Your task to perform on an android device: turn smart compose on in the gmail app Image 0: 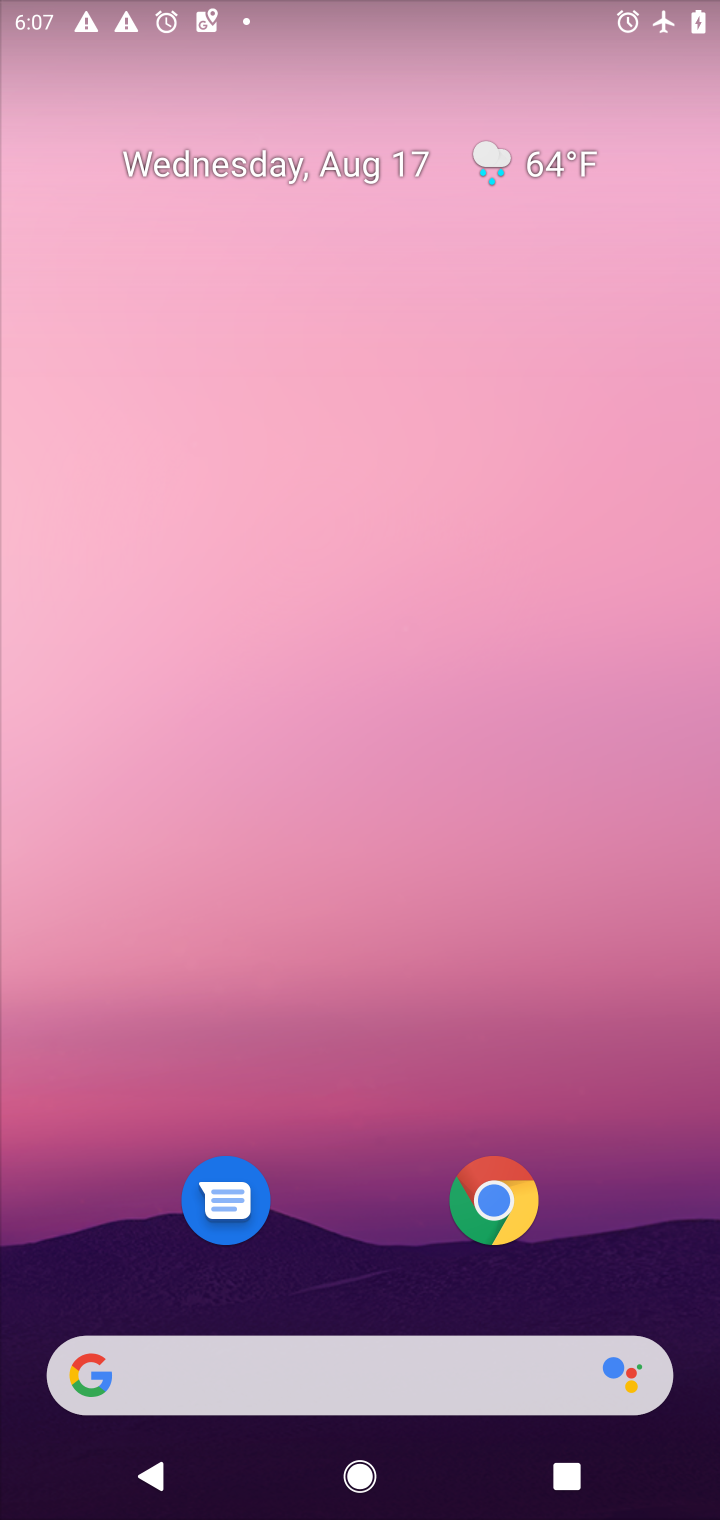
Step 0: drag from (363, 975) to (373, 128)
Your task to perform on an android device: turn smart compose on in the gmail app Image 1: 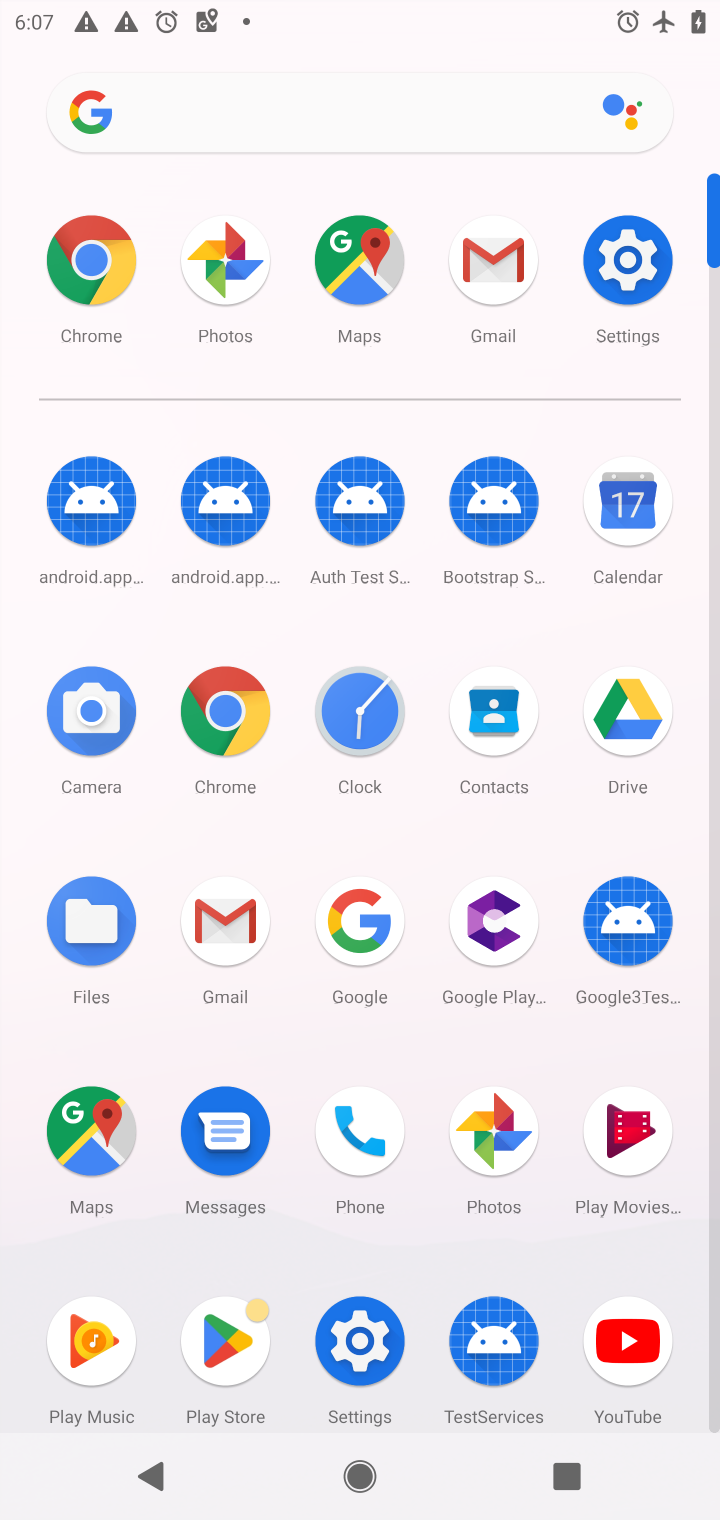
Step 1: click (224, 913)
Your task to perform on an android device: turn smart compose on in the gmail app Image 2: 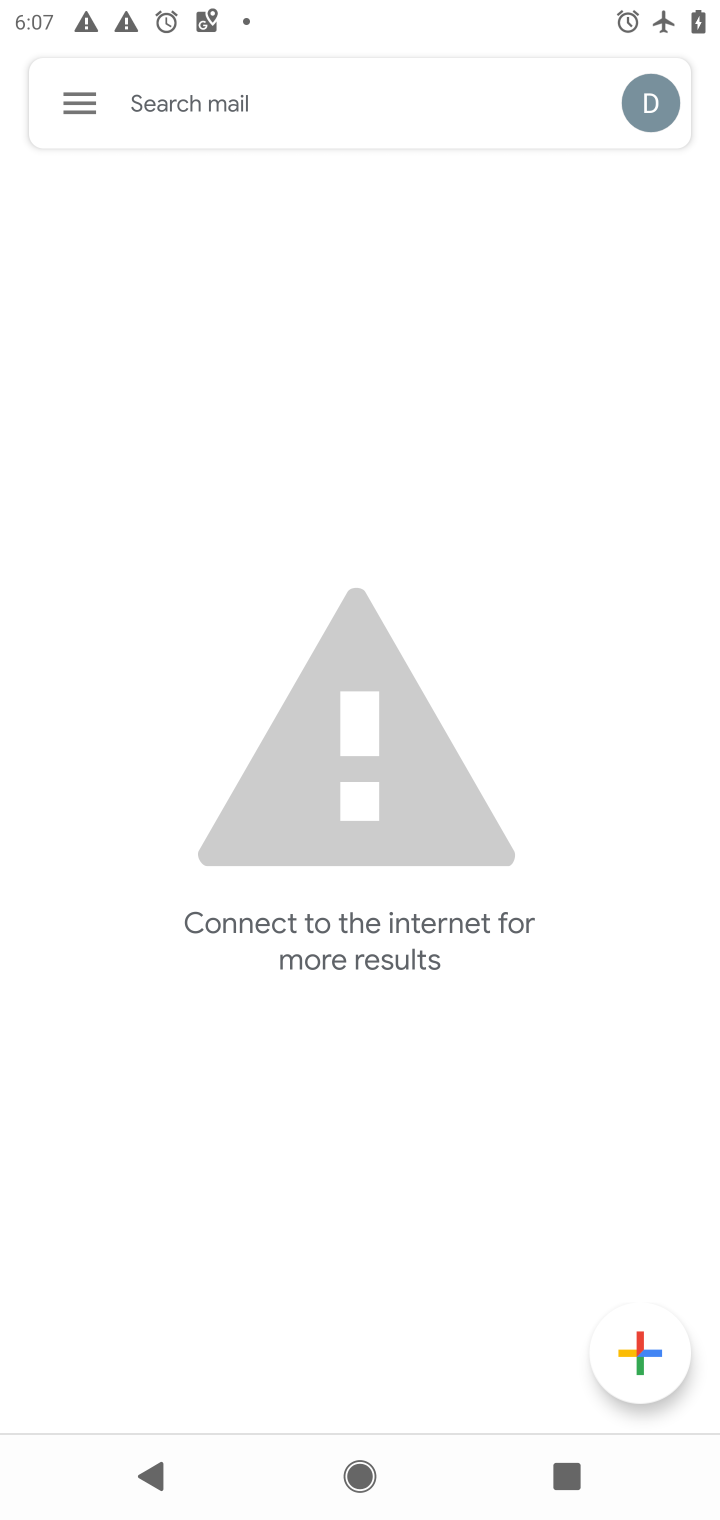
Step 2: click (65, 99)
Your task to perform on an android device: turn smart compose on in the gmail app Image 3: 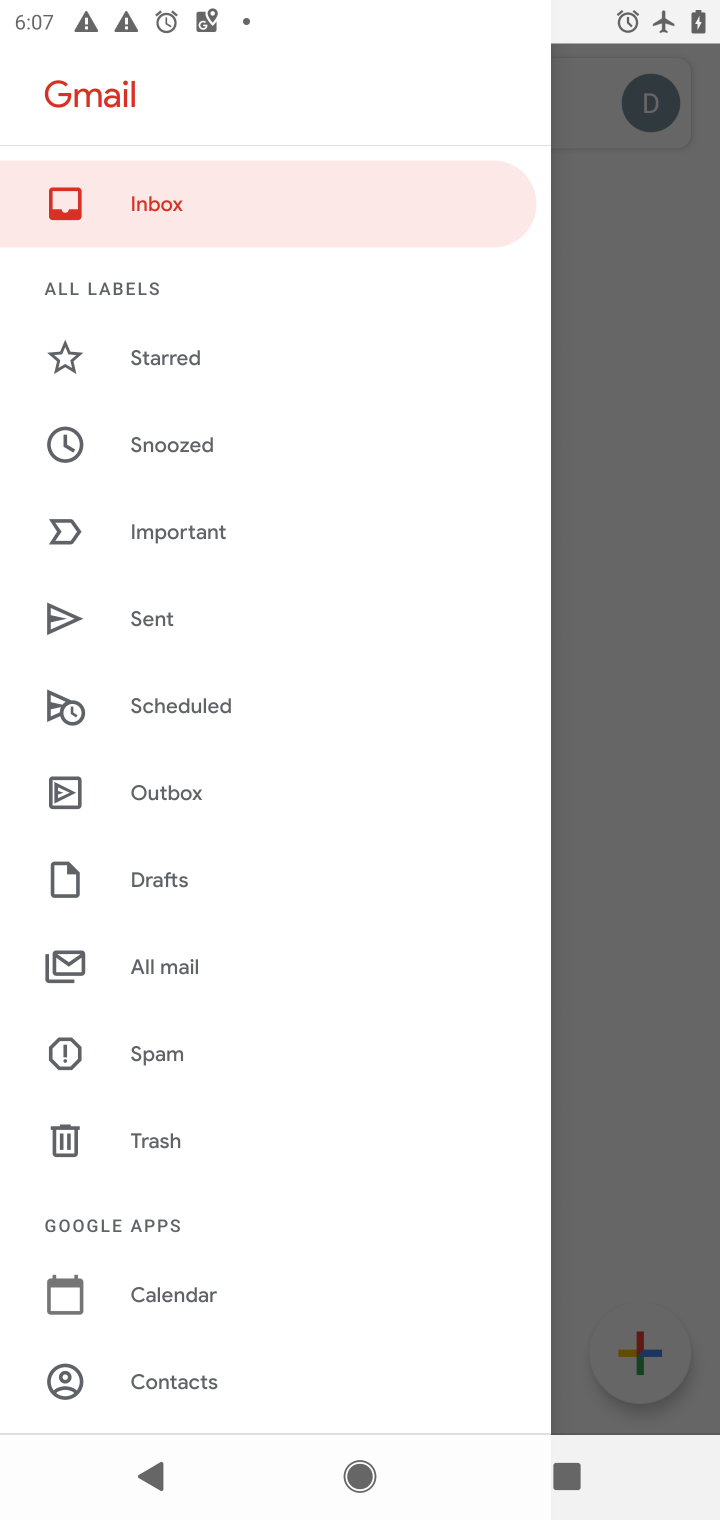
Step 3: drag from (179, 1320) to (175, 735)
Your task to perform on an android device: turn smart compose on in the gmail app Image 4: 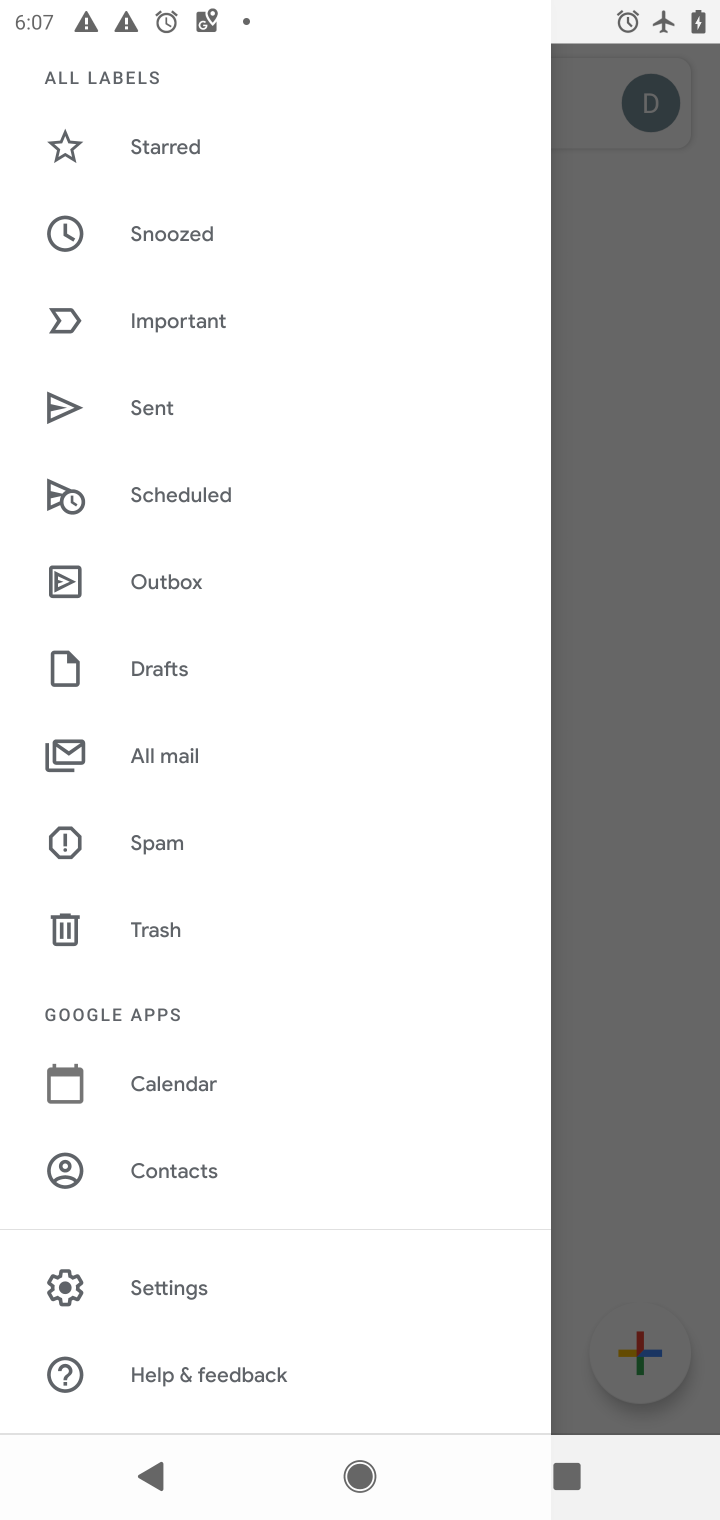
Step 4: click (166, 1286)
Your task to perform on an android device: turn smart compose on in the gmail app Image 5: 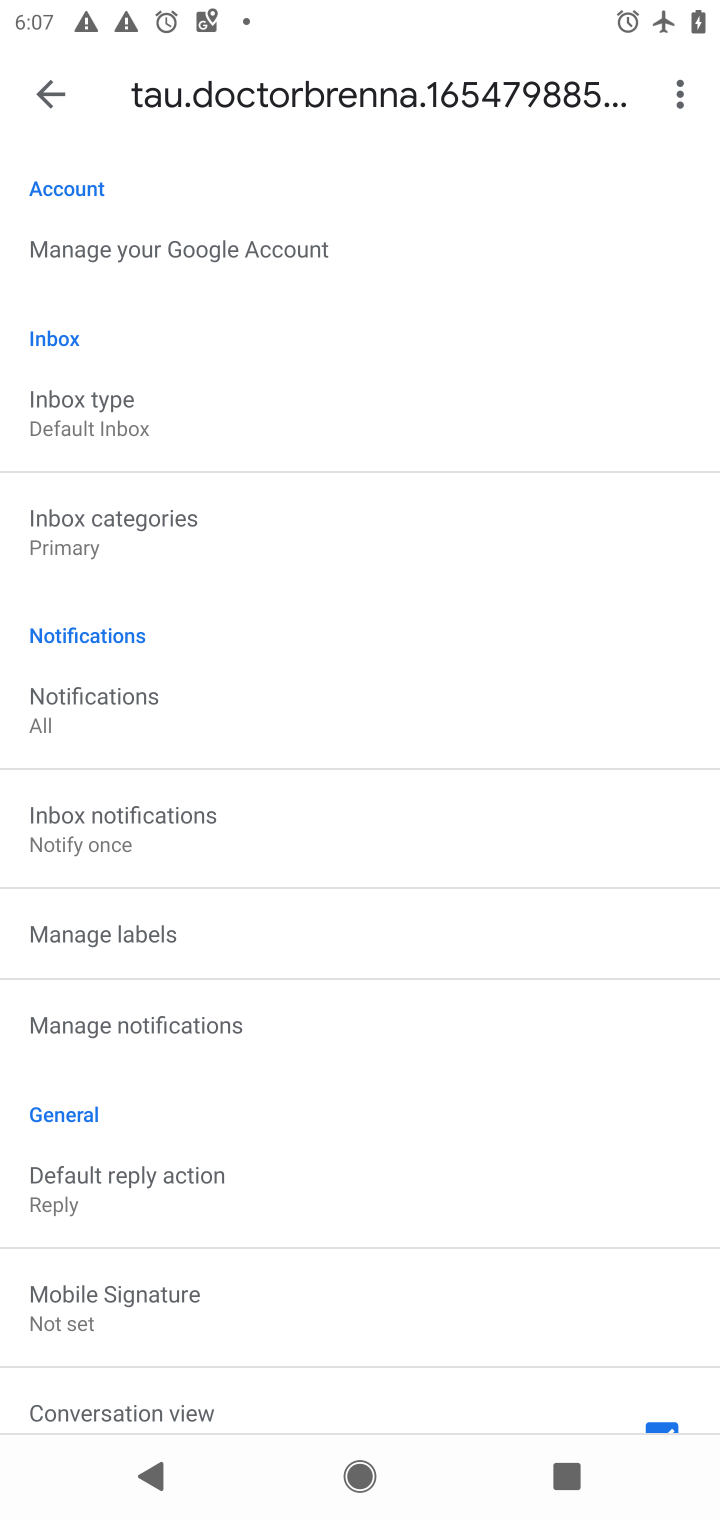
Step 5: task complete